Your task to perform on an android device: create a new album in the google photos Image 0: 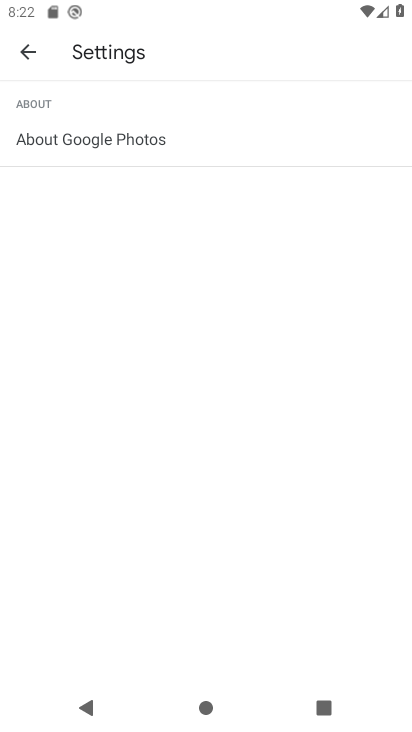
Step 0: press home button
Your task to perform on an android device: create a new album in the google photos Image 1: 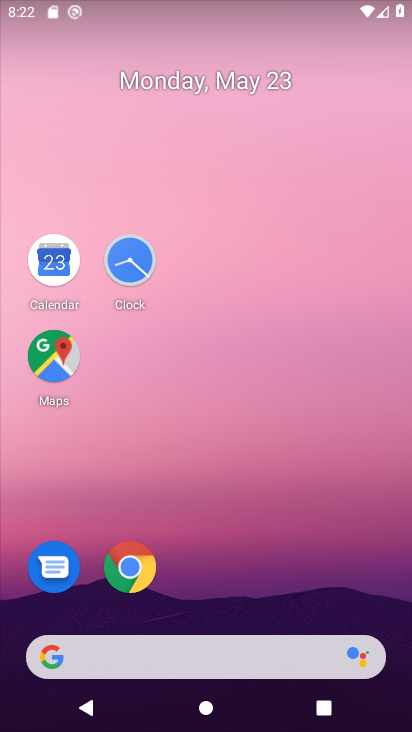
Step 1: drag from (235, 575) to (262, 144)
Your task to perform on an android device: create a new album in the google photos Image 2: 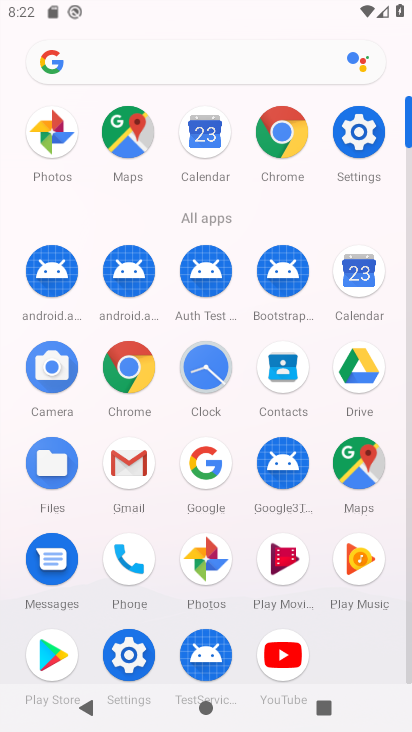
Step 2: drag from (206, 562) to (148, 381)
Your task to perform on an android device: create a new album in the google photos Image 3: 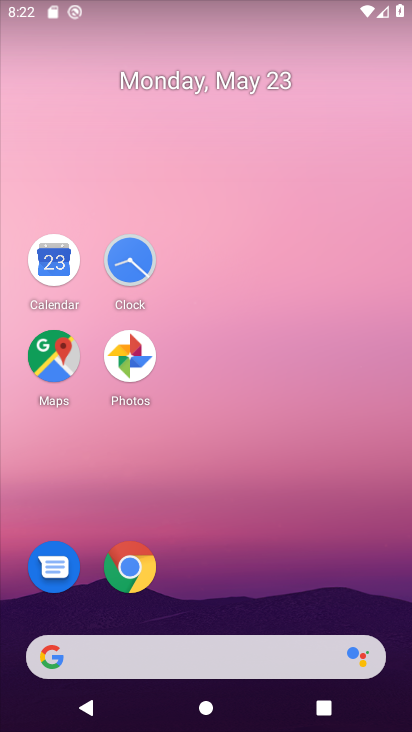
Step 3: click (143, 356)
Your task to perform on an android device: create a new album in the google photos Image 4: 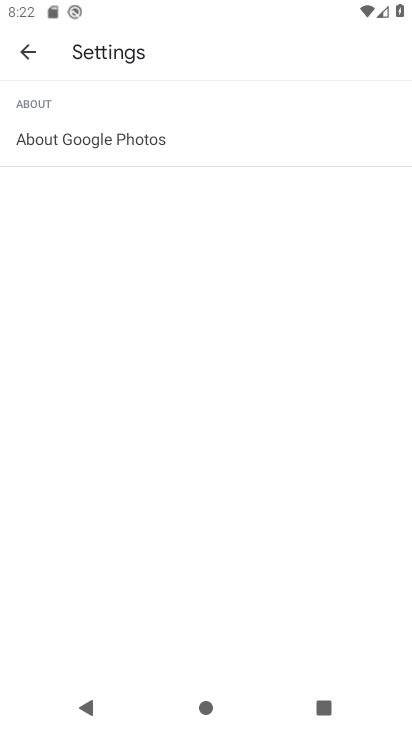
Step 4: click (33, 51)
Your task to perform on an android device: create a new album in the google photos Image 5: 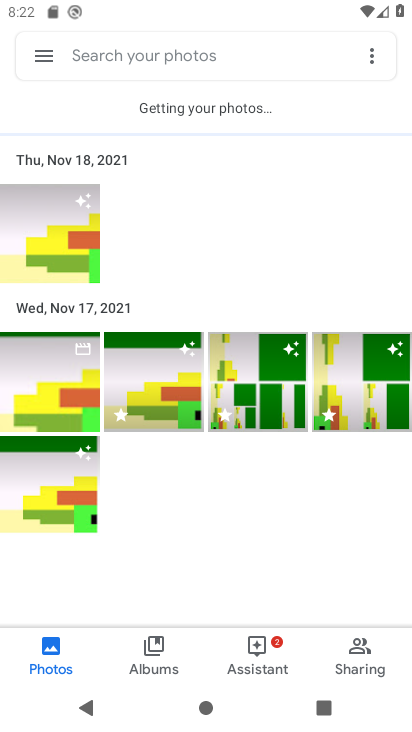
Step 5: click (173, 650)
Your task to perform on an android device: create a new album in the google photos Image 6: 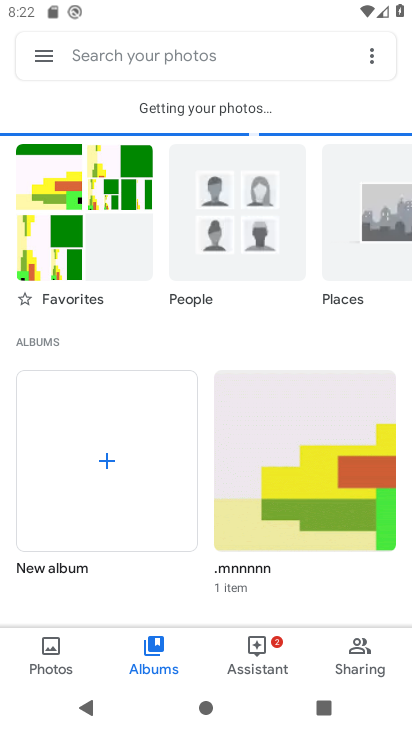
Step 6: click (142, 467)
Your task to perform on an android device: create a new album in the google photos Image 7: 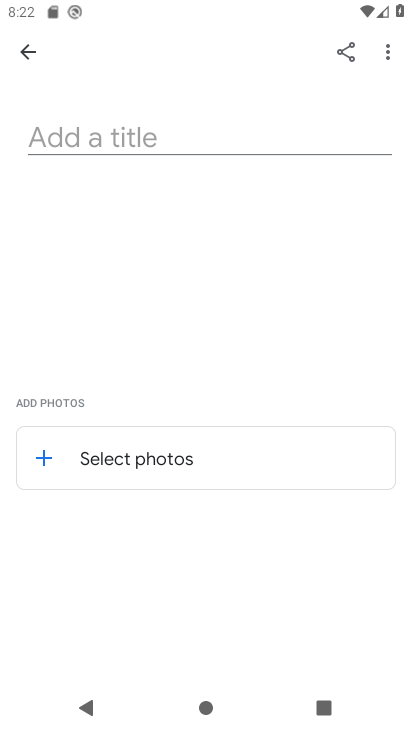
Step 7: click (125, 127)
Your task to perform on an android device: create a new album in the google photos Image 8: 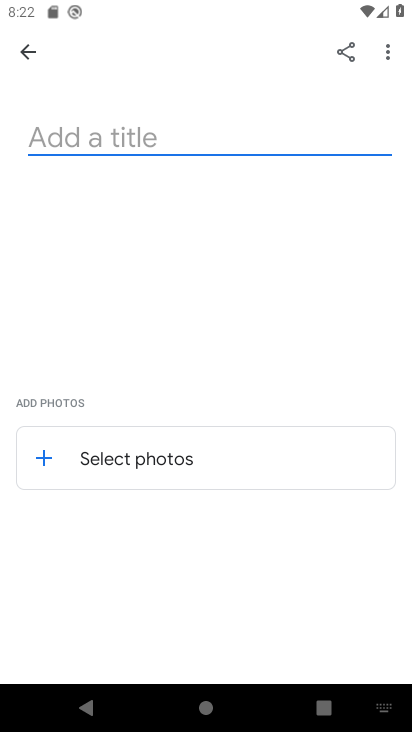
Step 8: type "bbb"
Your task to perform on an android device: create a new album in the google photos Image 9: 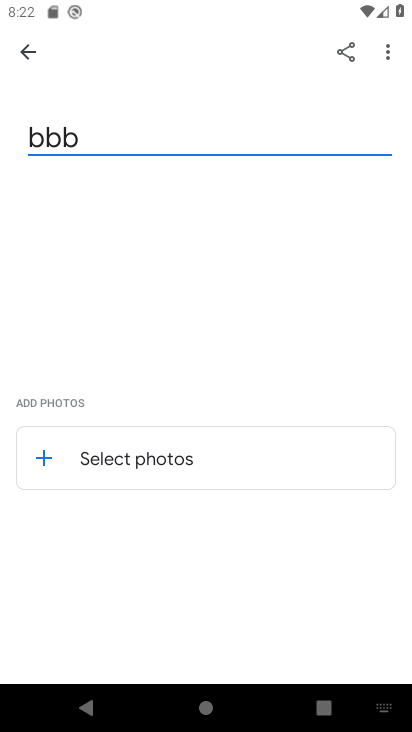
Step 9: click (166, 470)
Your task to perform on an android device: create a new album in the google photos Image 10: 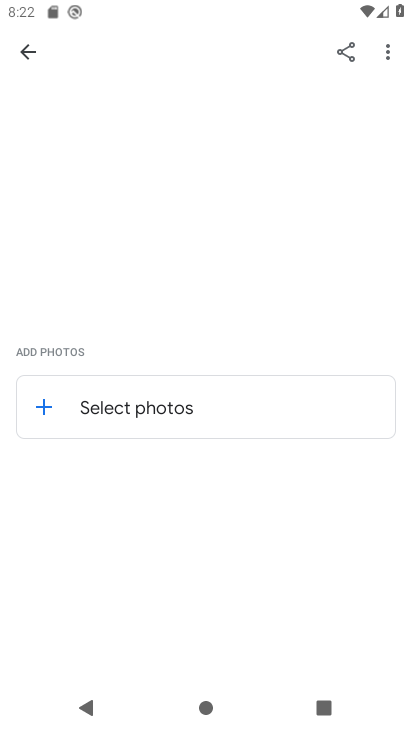
Step 10: click (91, 420)
Your task to perform on an android device: create a new album in the google photos Image 11: 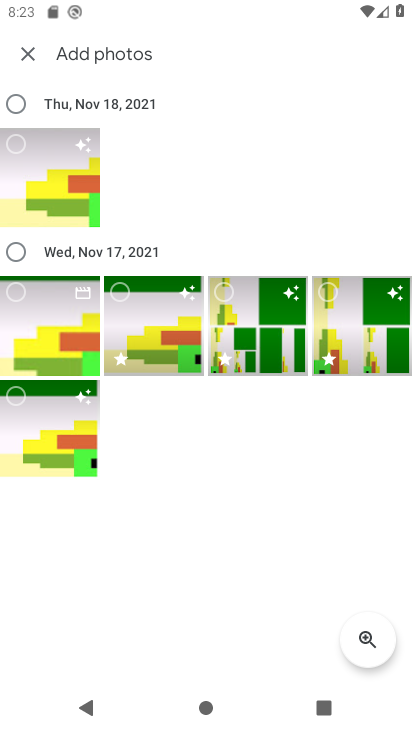
Step 11: click (99, 292)
Your task to perform on an android device: create a new album in the google photos Image 12: 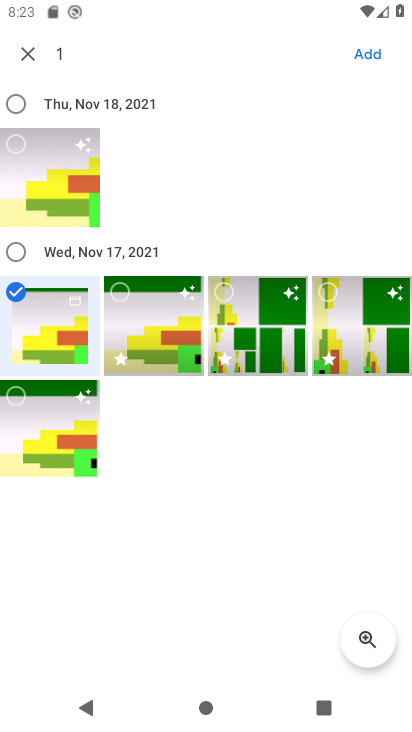
Step 12: click (132, 298)
Your task to perform on an android device: create a new album in the google photos Image 13: 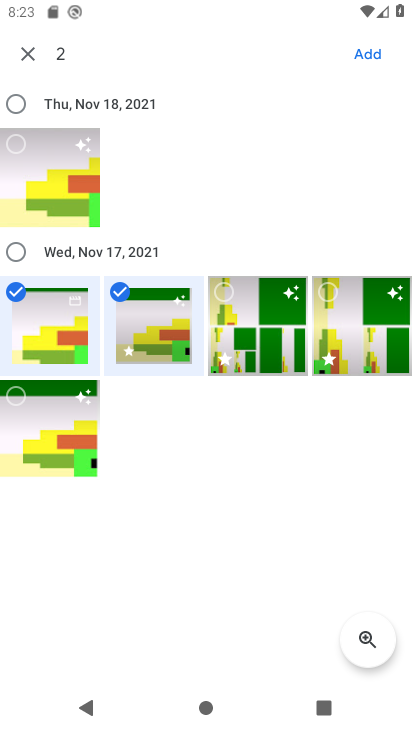
Step 13: click (371, 64)
Your task to perform on an android device: create a new album in the google photos Image 14: 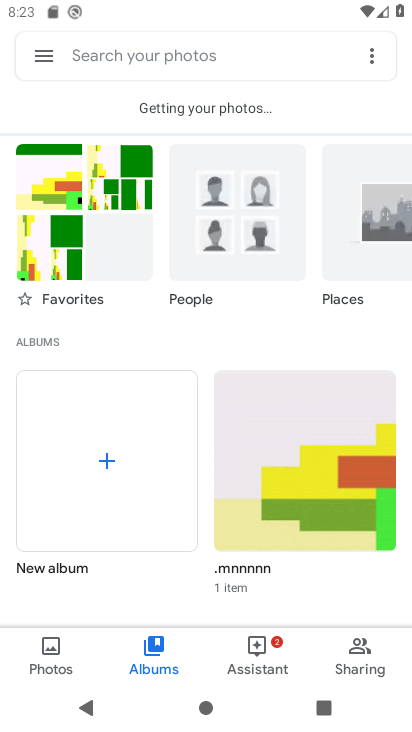
Step 14: task complete